Your task to perform on an android device: stop showing notifications on the lock screen Image 0: 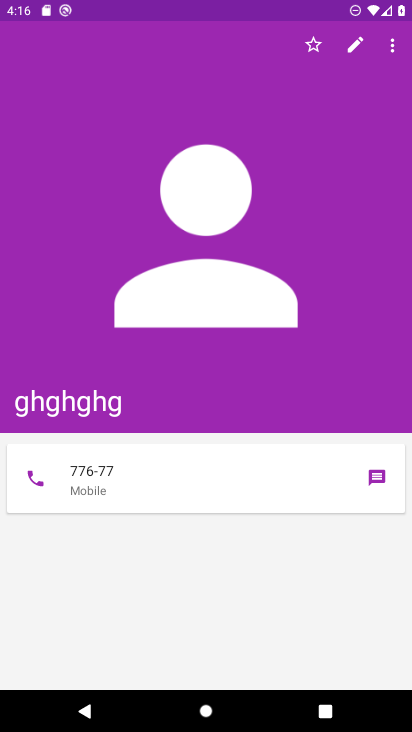
Step 0: press home button
Your task to perform on an android device: stop showing notifications on the lock screen Image 1: 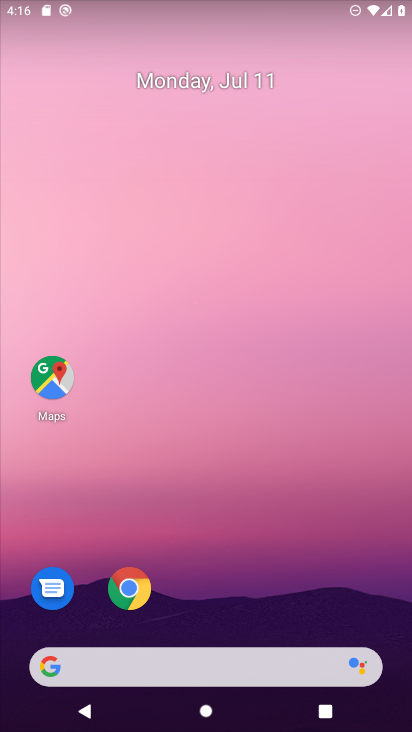
Step 1: drag from (305, 581) to (266, 37)
Your task to perform on an android device: stop showing notifications on the lock screen Image 2: 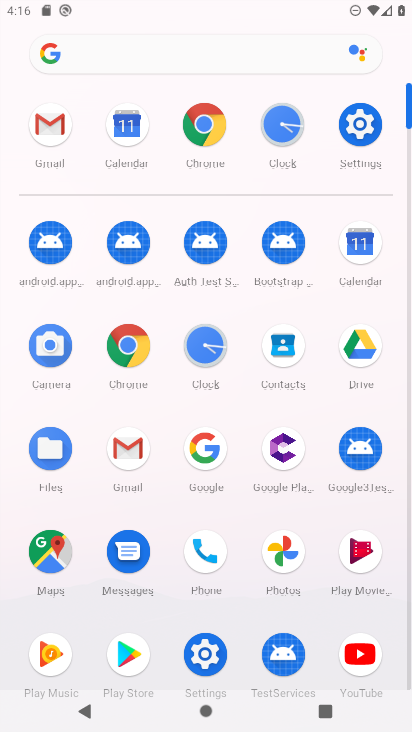
Step 2: click (360, 128)
Your task to perform on an android device: stop showing notifications on the lock screen Image 3: 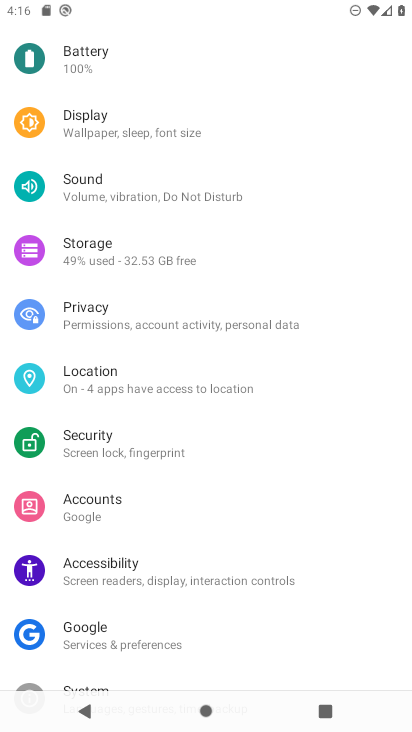
Step 3: drag from (156, 84) to (160, 356)
Your task to perform on an android device: stop showing notifications on the lock screen Image 4: 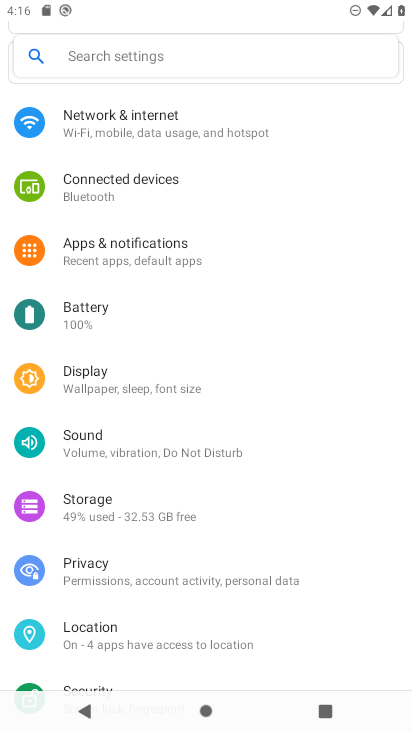
Step 4: click (117, 257)
Your task to perform on an android device: stop showing notifications on the lock screen Image 5: 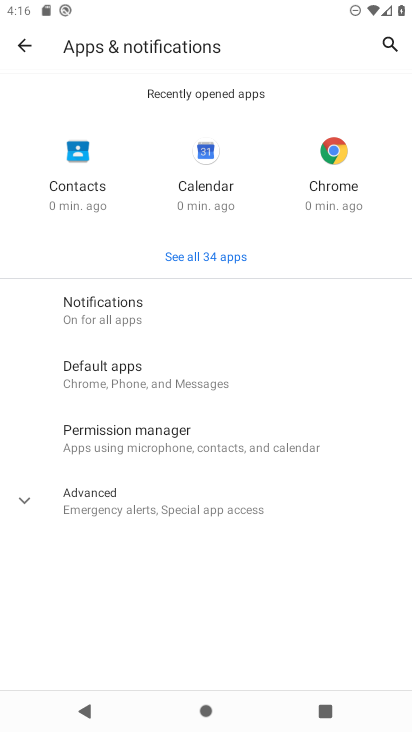
Step 5: click (111, 308)
Your task to perform on an android device: stop showing notifications on the lock screen Image 6: 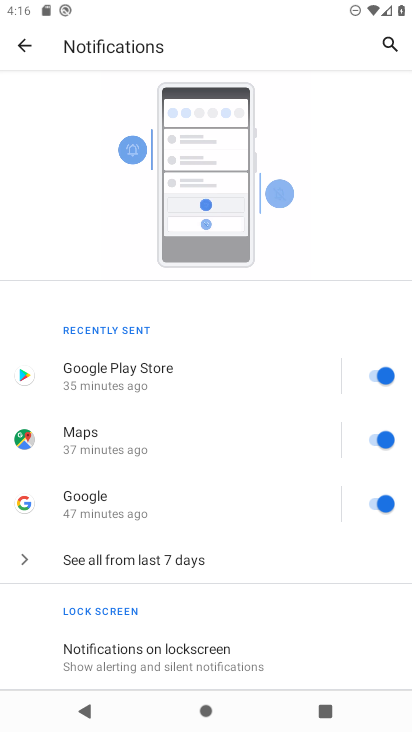
Step 6: click (86, 662)
Your task to perform on an android device: stop showing notifications on the lock screen Image 7: 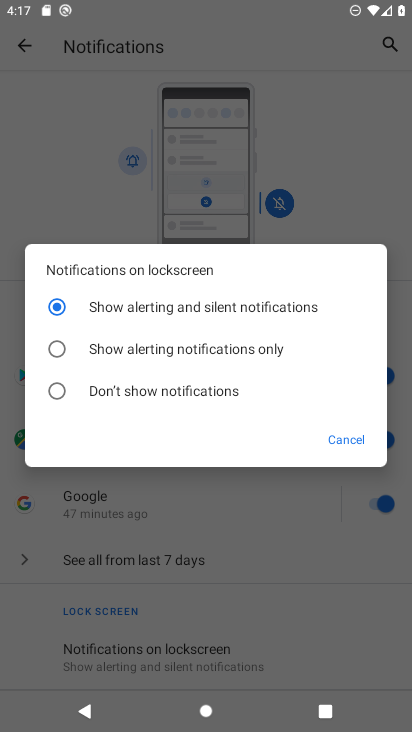
Step 7: click (61, 388)
Your task to perform on an android device: stop showing notifications on the lock screen Image 8: 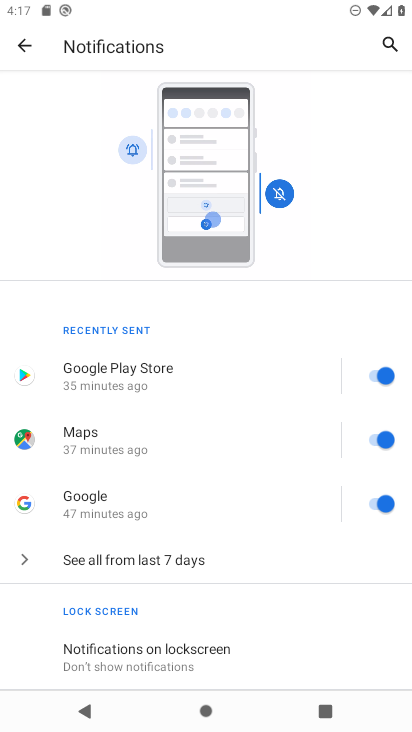
Step 8: task complete